Your task to perform on an android device: turn pop-ups off in chrome Image 0: 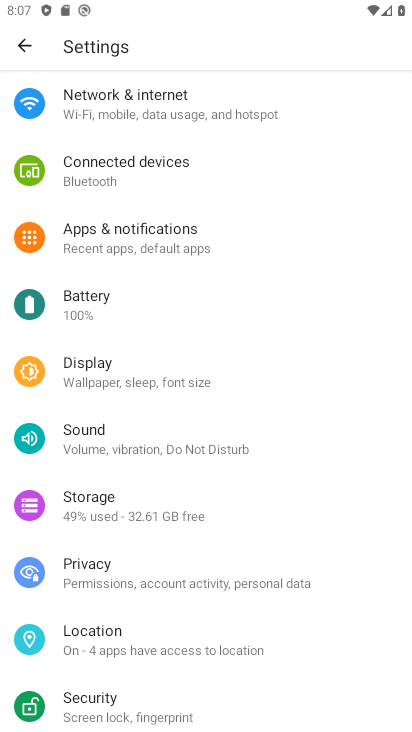
Step 0: press home button
Your task to perform on an android device: turn pop-ups off in chrome Image 1: 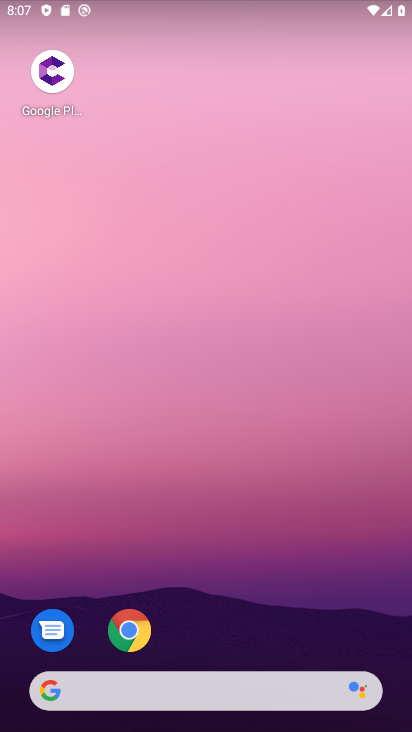
Step 1: drag from (381, 625) to (367, 199)
Your task to perform on an android device: turn pop-ups off in chrome Image 2: 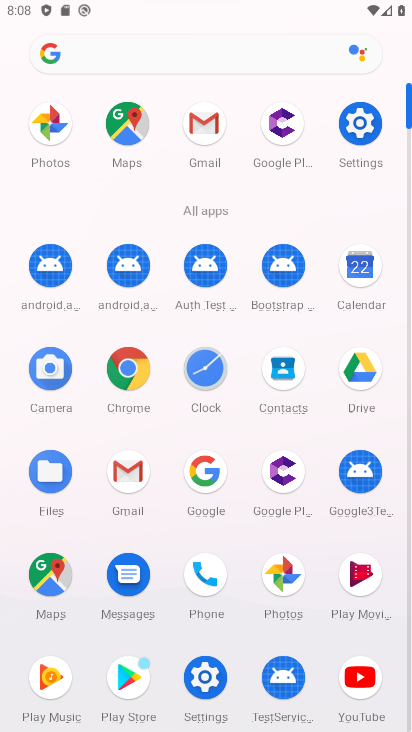
Step 2: click (130, 376)
Your task to perform on an android device: turn pop-ups off in chrome Image 3: 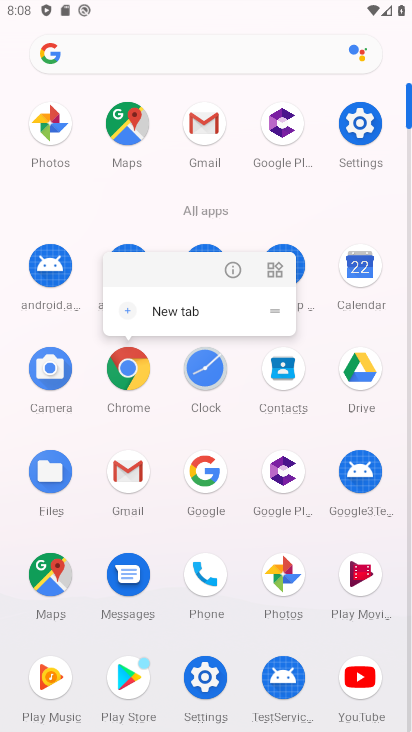
Step 3: click (130, 376)
Your task to perform on an android device: turn pop-ups off in chrome Image 4: 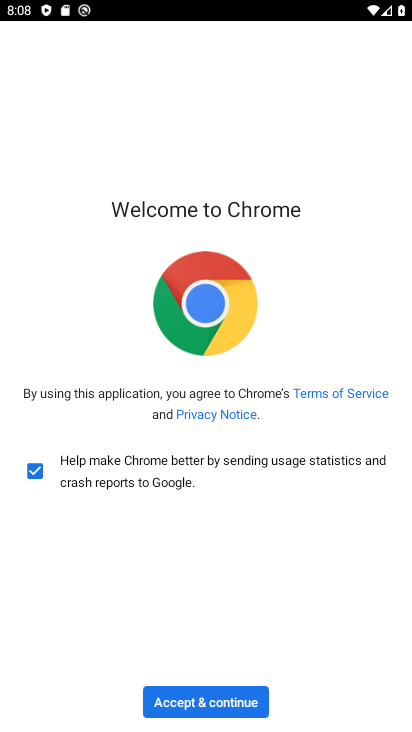
Step 4: click (240, 706)
Your task to perform on an android device: turn pop-ups off in chrome Image 5: 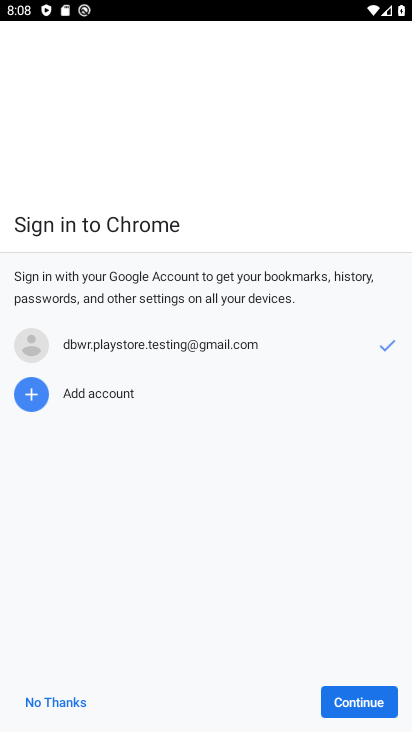
Step 5: click (350, 706)
Your task to perform on an android device: turn pop-ups off in chrome Image 6: 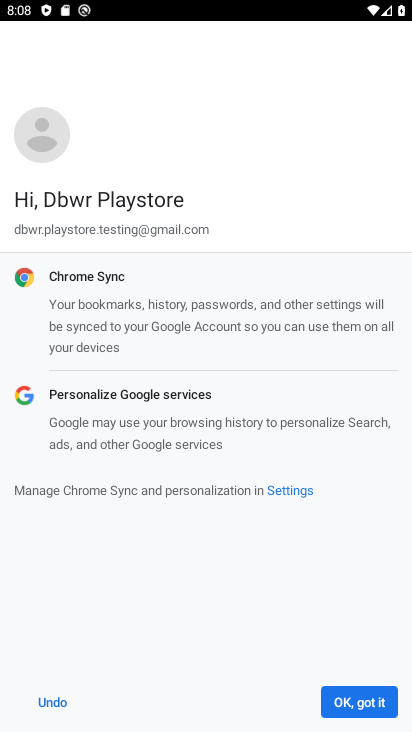
Step 6: click (350, 706)
Your task to perform on an android device: turn pop-ups off in chrome Image 7: 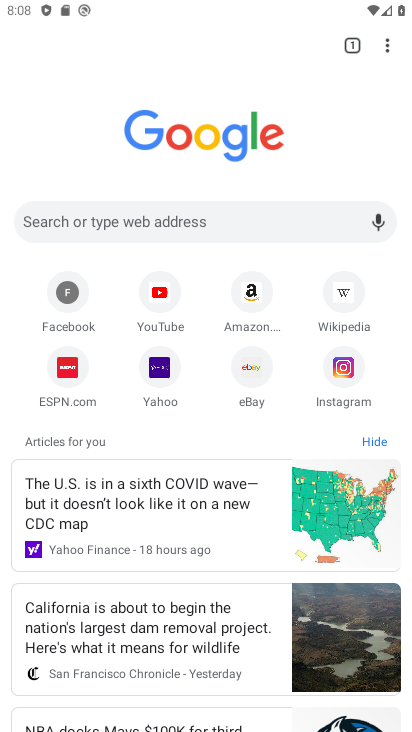
Step 7: click (389, 51)
Your task to perform on an android device: turn pop-ups off in chrome Image 8: 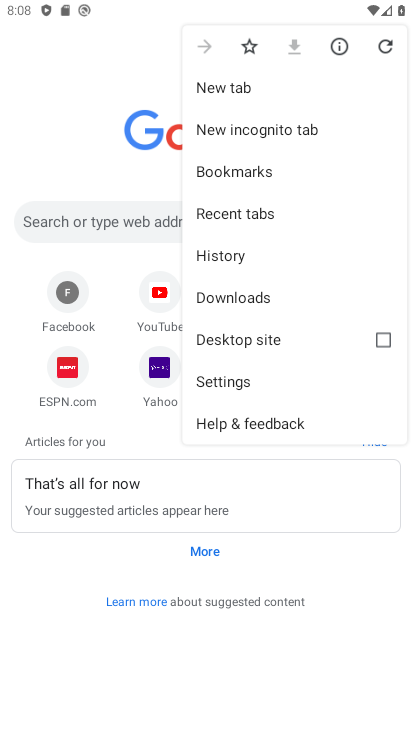
Step 8: click (287, 390)
Your task to perform on an android device: turn pop-ups off in chrome Image 9: 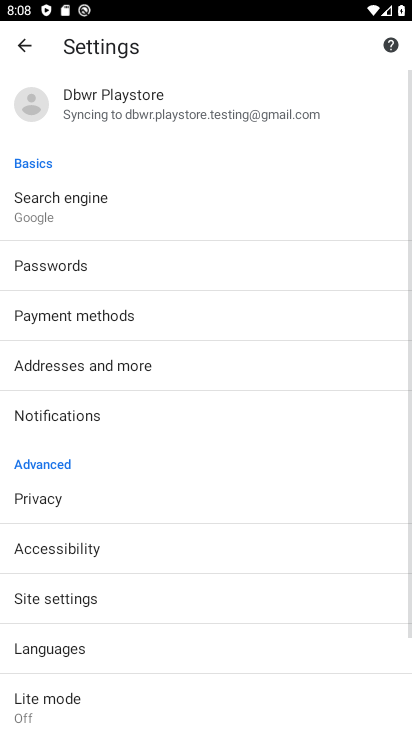
Step 9: drag from (296, 476) to (308, 379)
Your task to perform on an android device: turn pop-ups off in chrome Image 10: 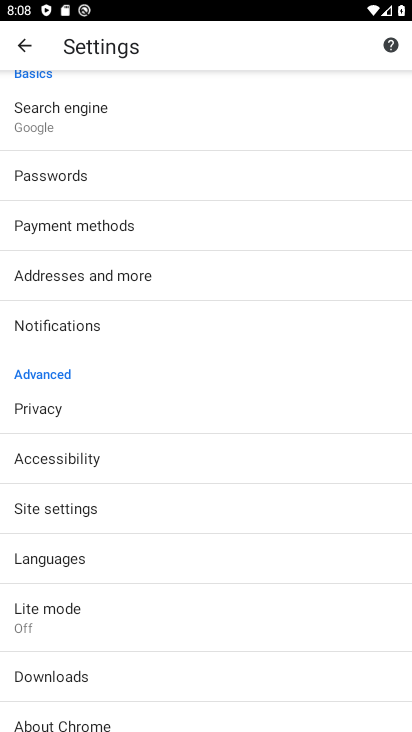
Step 10: drag from (294, 475) to (296, 385)
Your task to perform on an android device: turn pop-ups off in chrome Image 11: 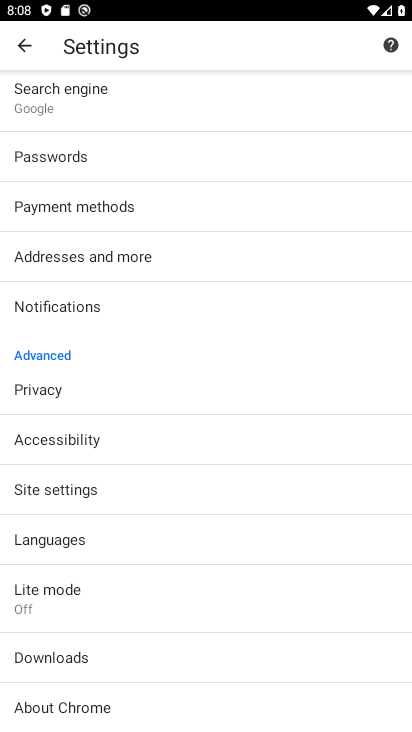
Step 11: drag from (288, 485) to (293, 412)
Your task to perform on an android device: turn pop-ups off in chrome Image 12: 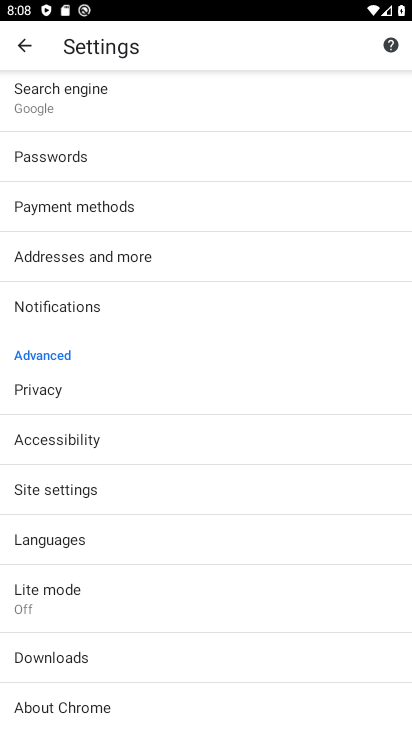
Step 12: drag from (288, 325) to (276, 402)
Your task to perform on an android device: turn pop-ups off in chrome Image 13: 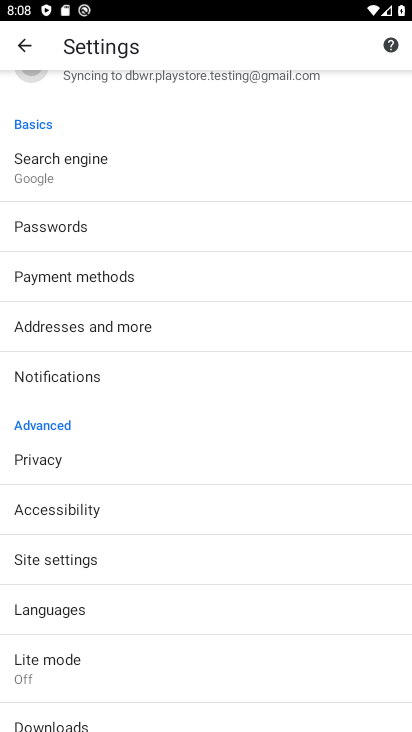
Step 13: drag from (290, 312) to (281, 416)
Your task to perform on an android device: turn pop-ups off in chrome Image 14: 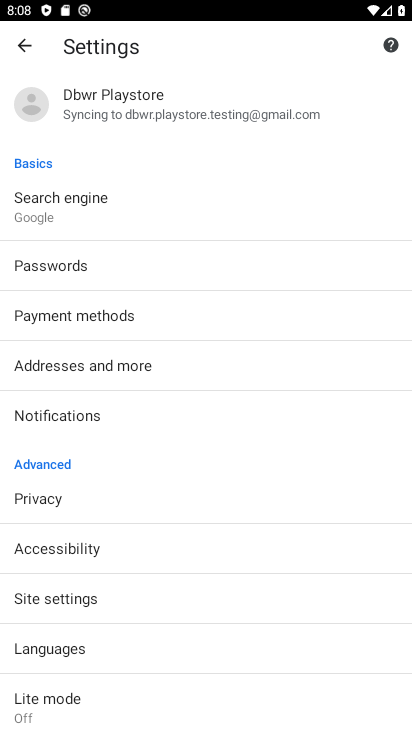
Step 14: drag from (299, 345) to (284, 435)
Your task to perform on an android device: turn pop-ups off in chrome Image 15: 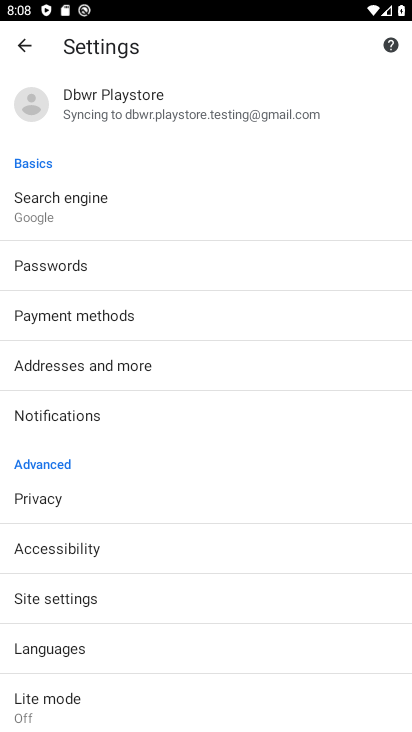
Step 15: drag from (297, 569) to (308, 474)
Your task to perform on an android device: turn pop-ups off in chrome Image 16: 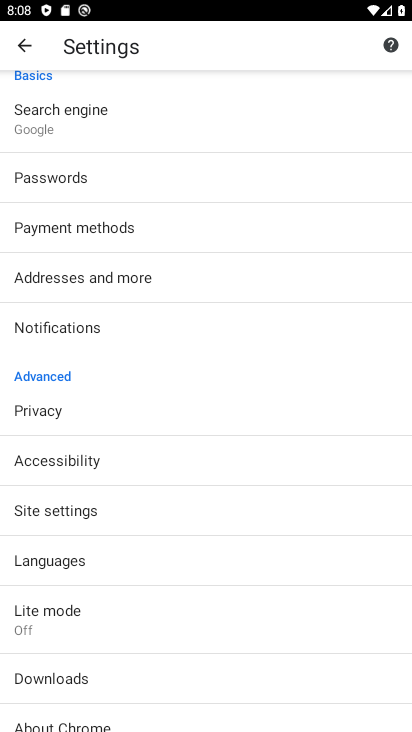
Step 16: drag from (304, 542) to (304, 459)
Your task to perform on an android device: turn pop-ups off in chrome Image 17: 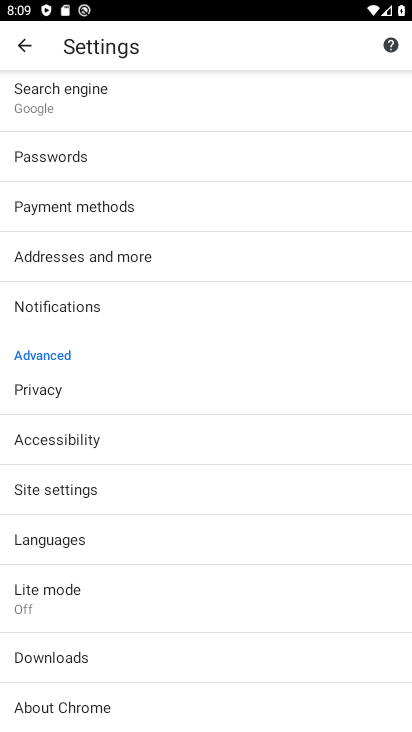
Step 17: drag from (302, 562) to (311, 459)
Your task to perform on an android device: turn pop-ups off in chrome Image 18: 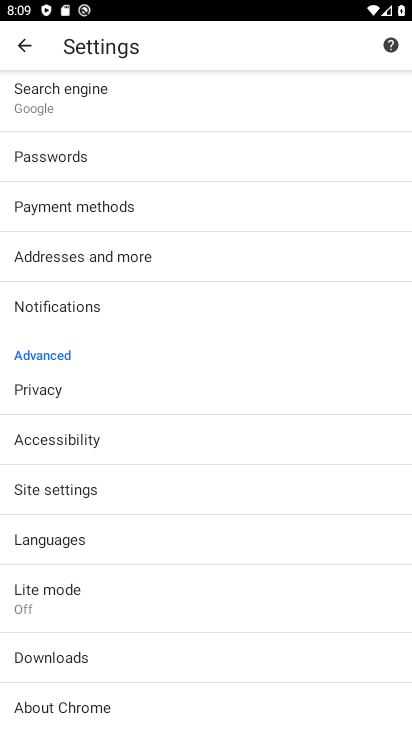
Step 18: drag from (313, 556) to (320, 460)
Your task to perform on an android device: turn pop-ups off in chrome Image 19: 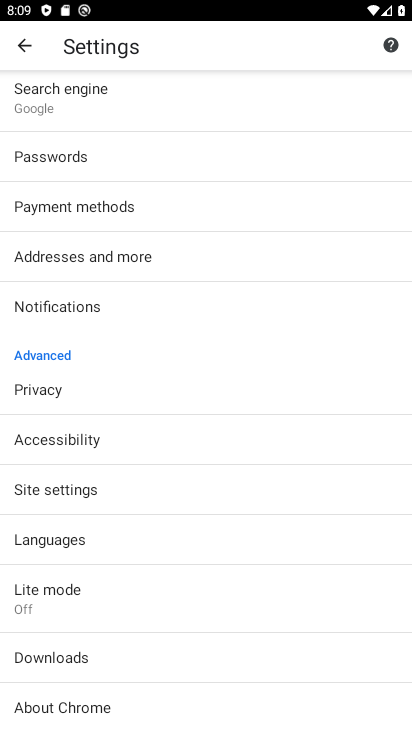
Step 19: drag from (298, 559) to (293, 465)
Your task to perform on an android device: turn pop-ups off in chrome Image 20: 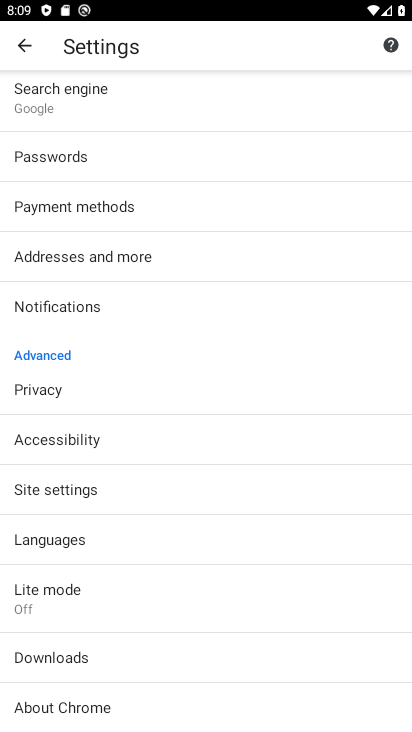
Step 20: click (214, 489)
Your task to perform on an android device: turn pop-ups off in chrome Image 21: 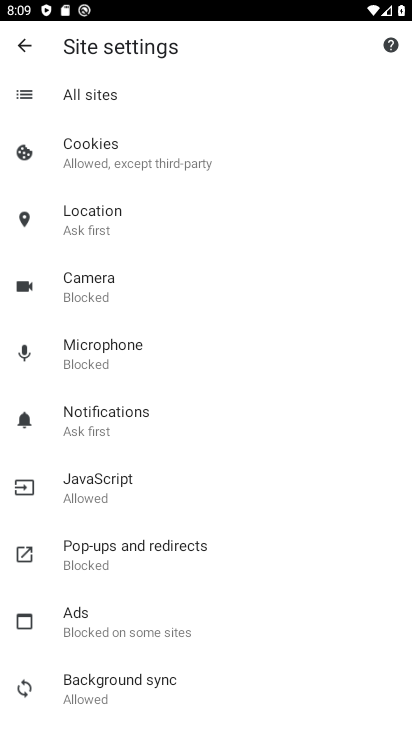
Step 21: drag from (290, 587) to (293, 528)
Your task to perform on an android device: turn pop-ups off in chrome Image 22: 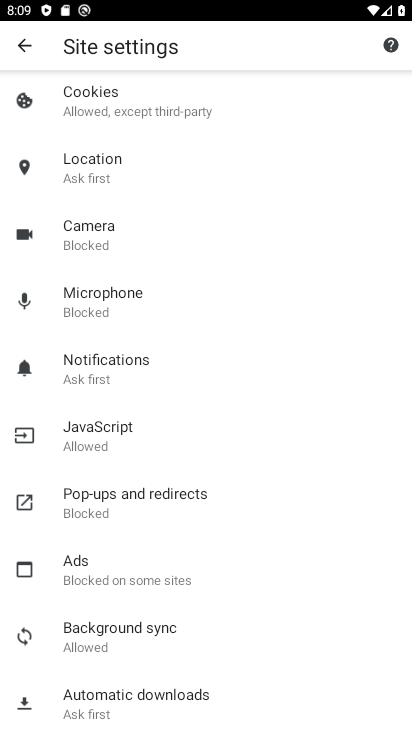
Step 22: drag from (301, 556) to (301, 479)
Your task to perform on an android device: turn pop-ups off in chrome Image 23: 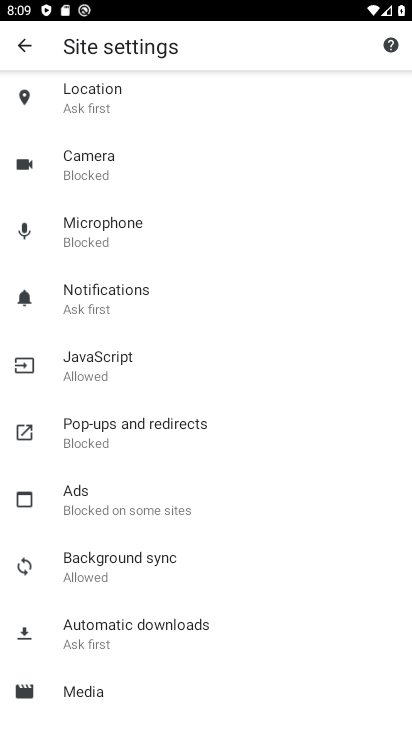
Step 23: drag from (305, 604) to (303, 524)
Your task to perform on an android device: turn pop-ups off in chrome Image 24: 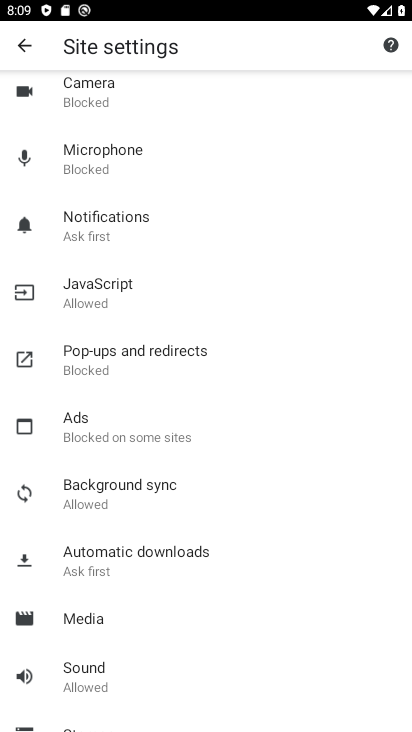
Step 24: drag from (293, 593) to (294, 506)
Your task to perform on an android device: turn pop-ups off in chrome Image 25: 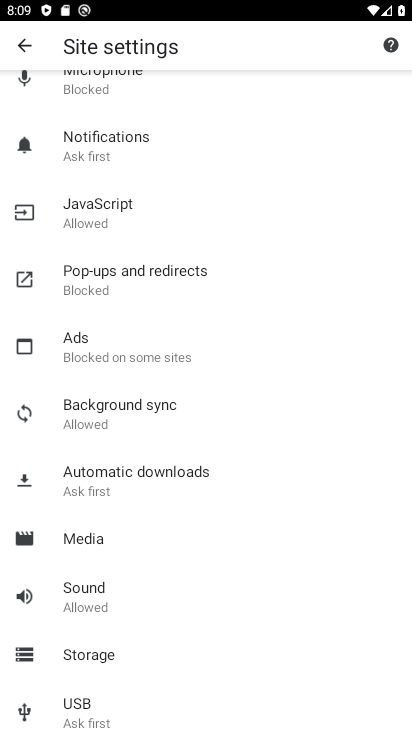
Step 25: click (170, 276)
Your task to perform on an android device: turn pop-ups off in chrome Image 26: 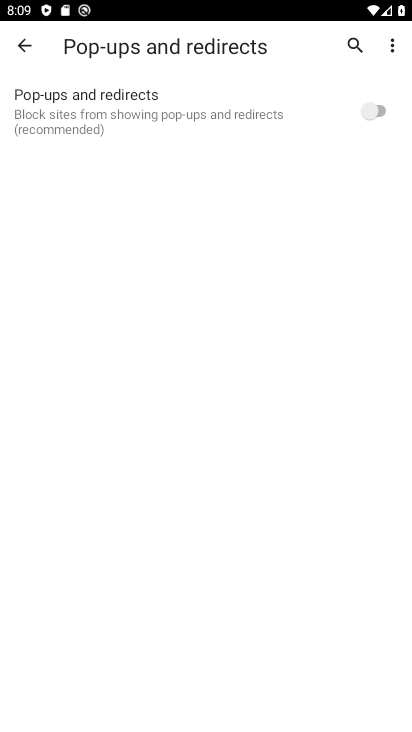
Step 26: task complete